Your task to perform on an android device: install app "Google Play Music" Image 0: 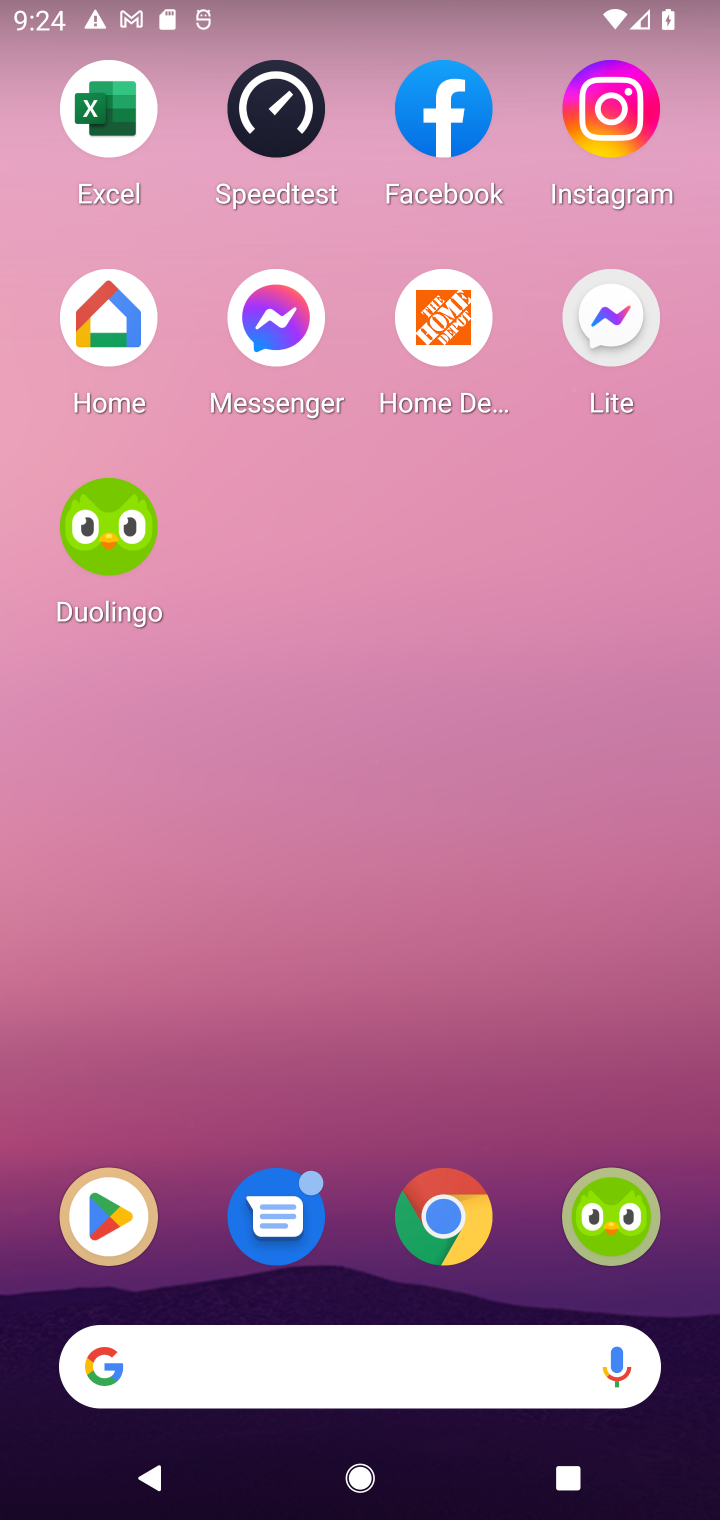
Step 0: click (138, 1246)
Your task to perform on an android device: install app "Google Play Music" Image 1: 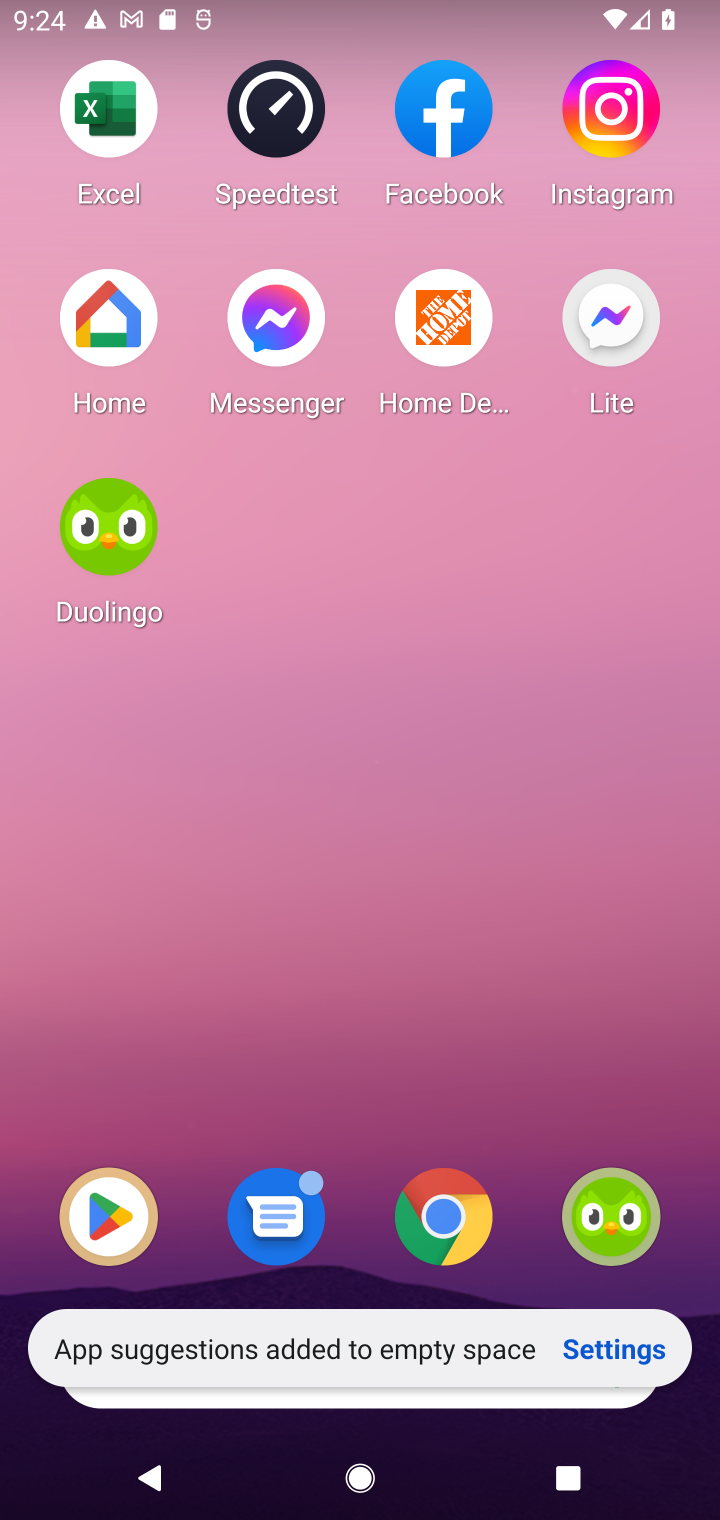
Step 1: click (125, 1224)
Your task to perform on an android device: install app "Google Play Music" Image 2: 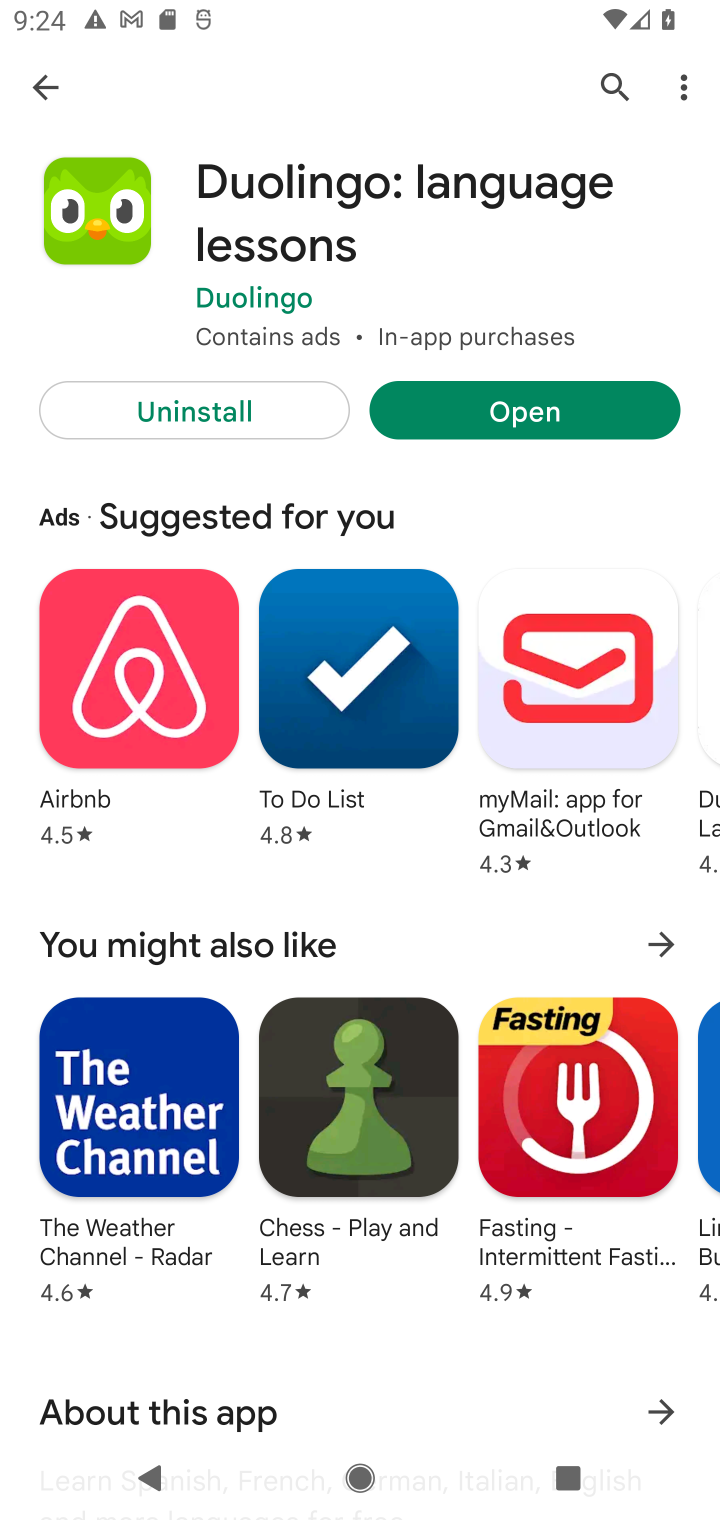
Step 2: click (623, 81)
Your task to perform on an android device: install app "Google Play Music" Image 3: 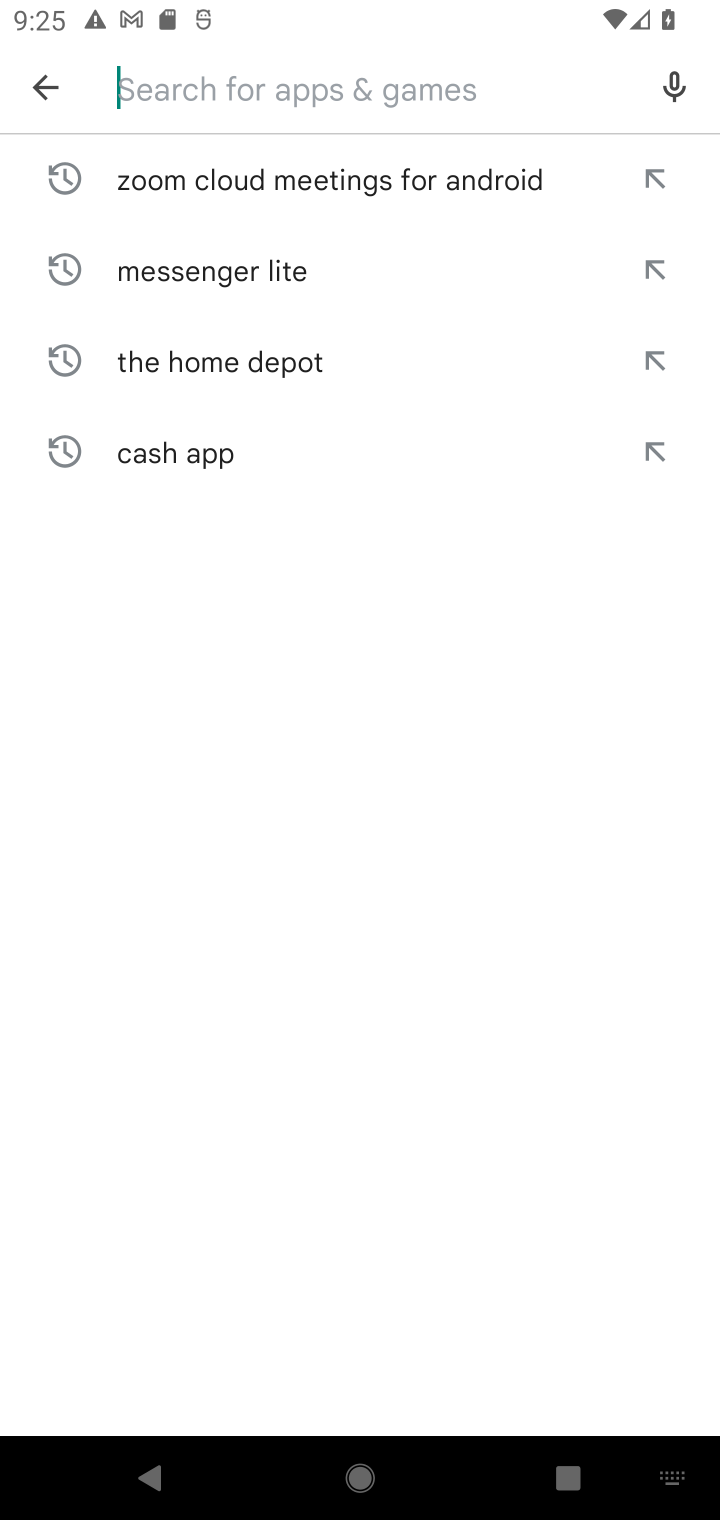
Step 3: type "Google Play Music"
Your task to perform on an android device: install app "Google Play Music" Image 4: 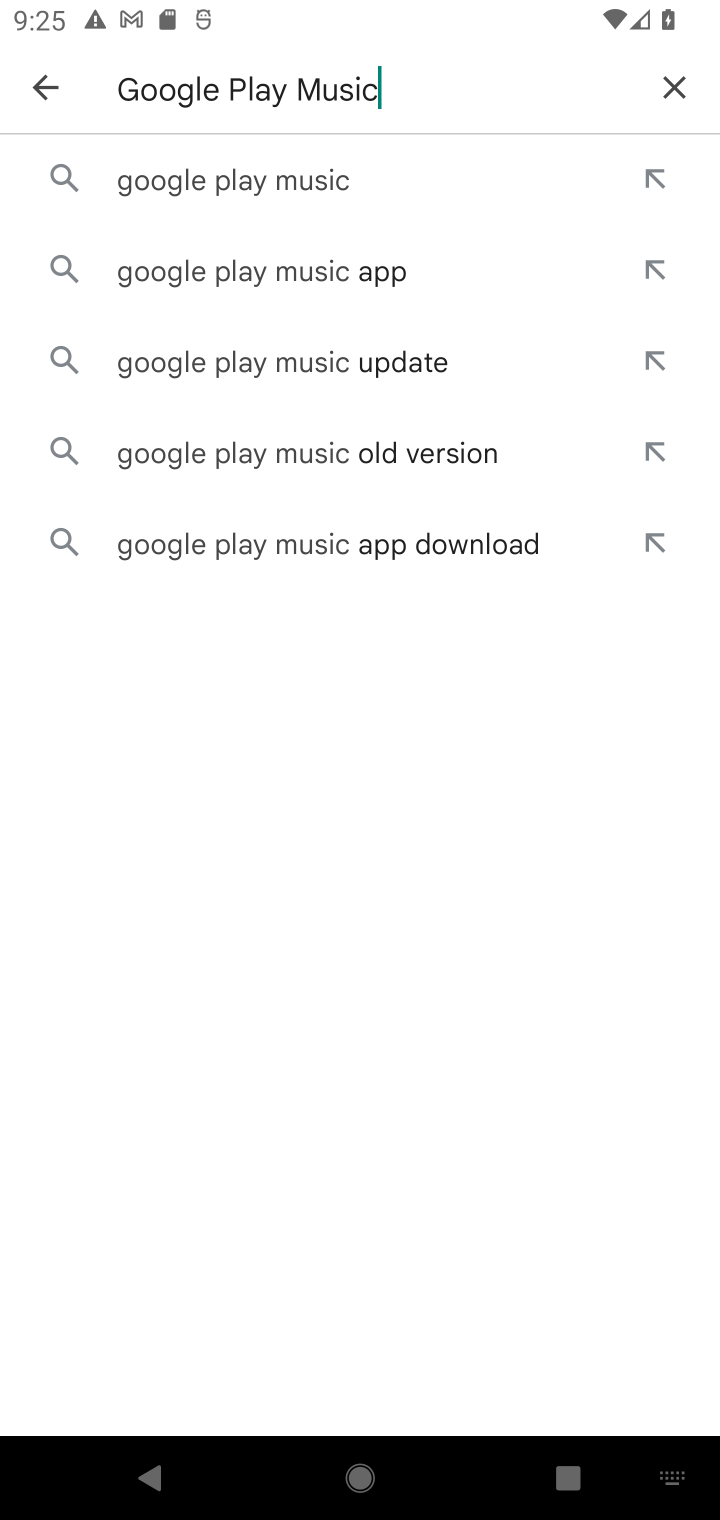
Step 4: click (226, 191)
Your task to perform on an android device: install app "Google Play Music" Image 5: 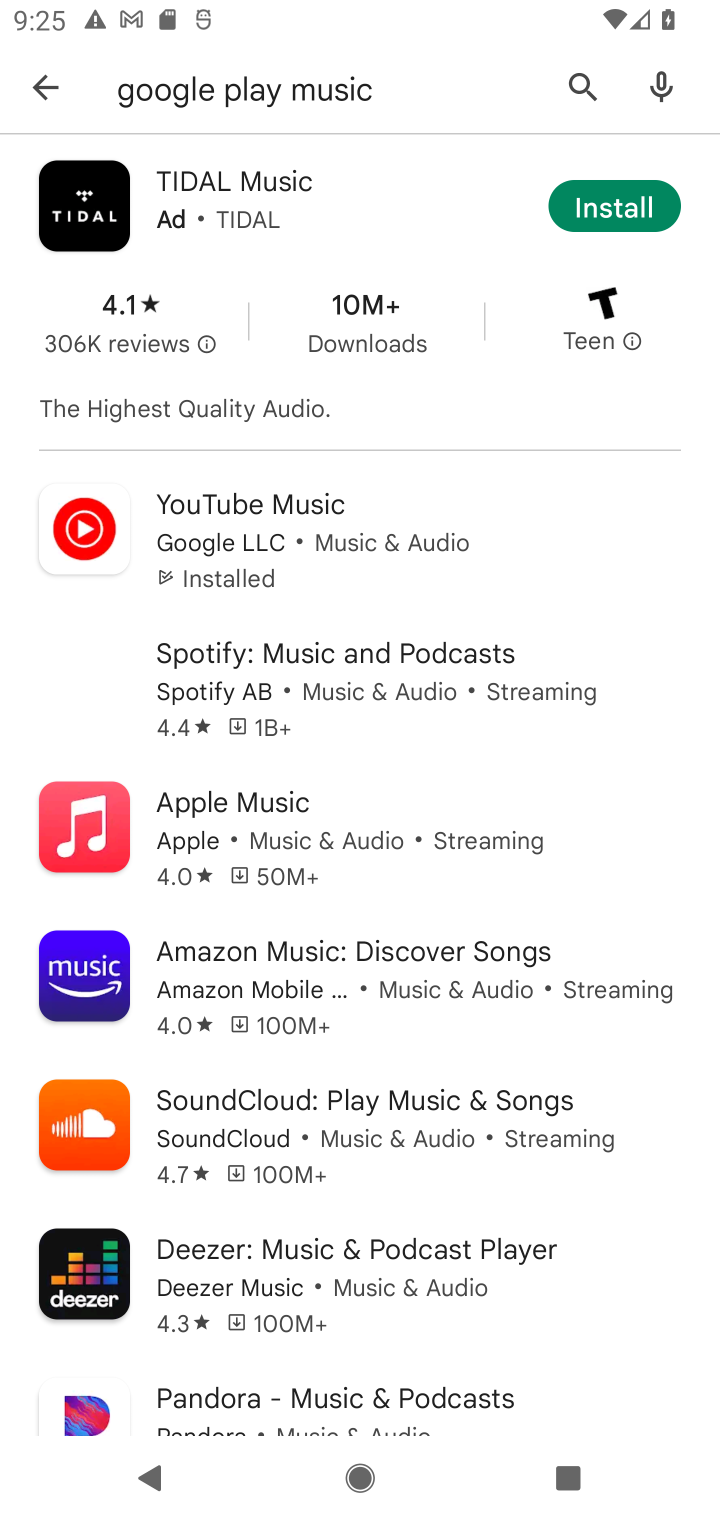
Step 5: task complete